Your task to perform on an android device: toggle javascript in the chrome app Image 0: 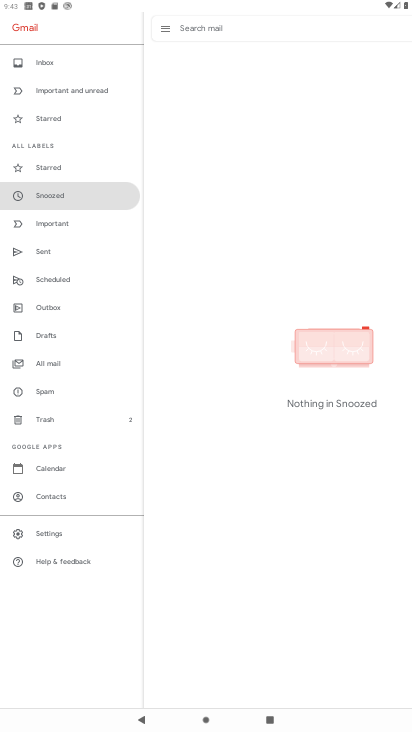
Step 0: press home button
Your task to perform on an android device: toggle javascript in the chrome app Image 1: 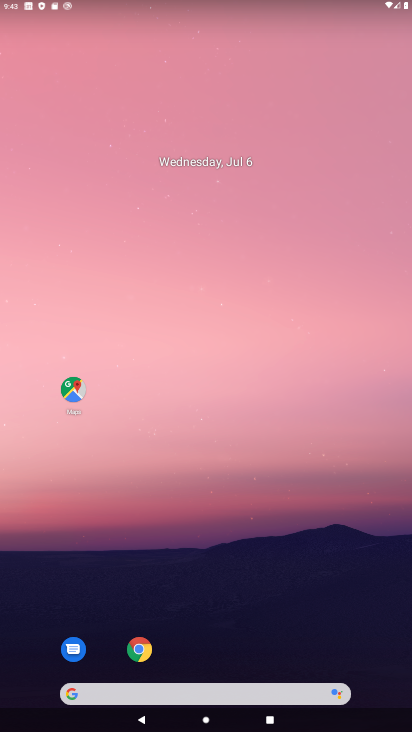
Step 1: drag from (208, 692) to (173, 191)
Your task to perform on an android device: toggle javascript in the chrome app Image 2: 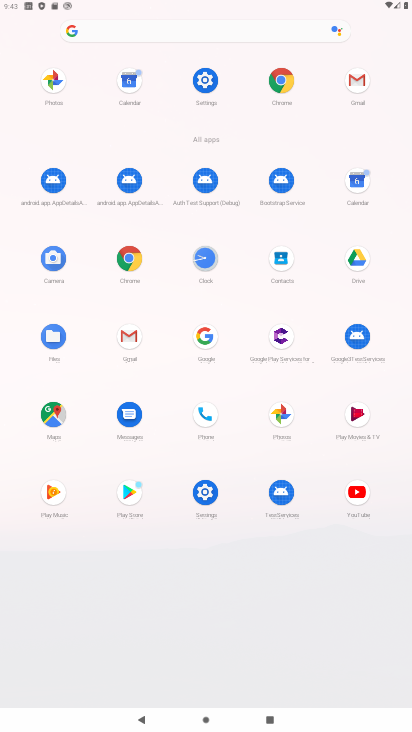
Step 2: click (295, 81)
Your task to perform on an android device: toggle javascript in the chrome app Image 3: 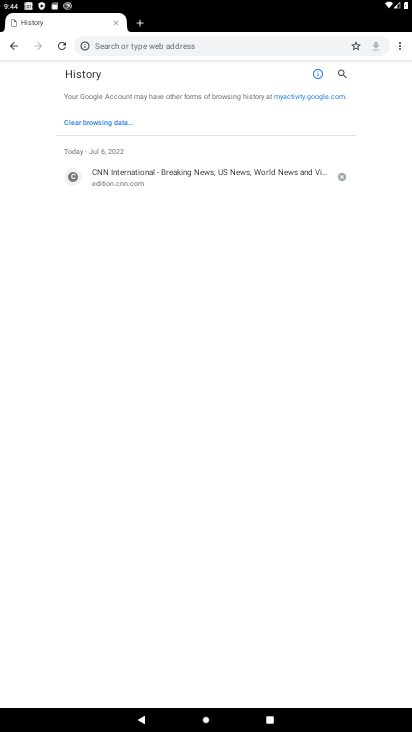
Step 3: drag from (397, 39) to (325, 216)
Your task to perform on an android device: toggle javascript in the chrome app Image 4: 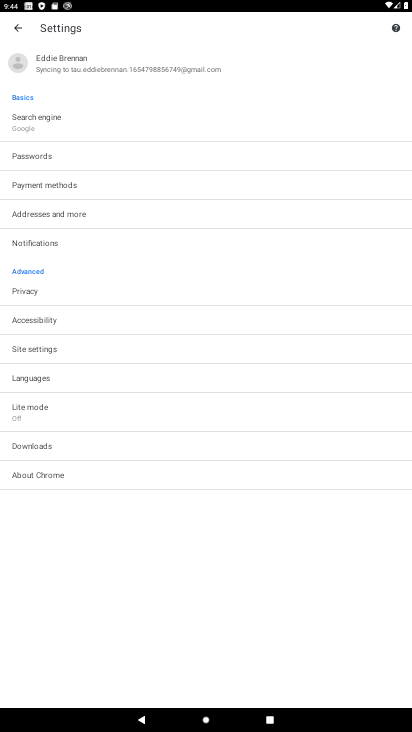
Step 4: click (68, 358)
Your task to perform on an android device: toggle javascript in the chrome app Image 5: 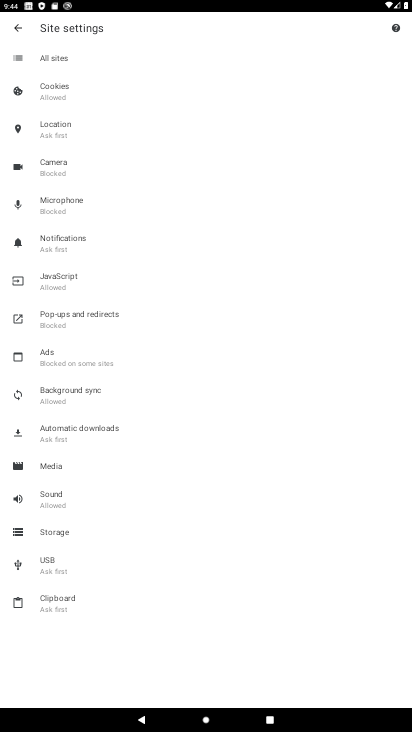
Step 5: click (103, 287)
Your task to perform on an android device: toggle javascript in the chrome app Image 6: 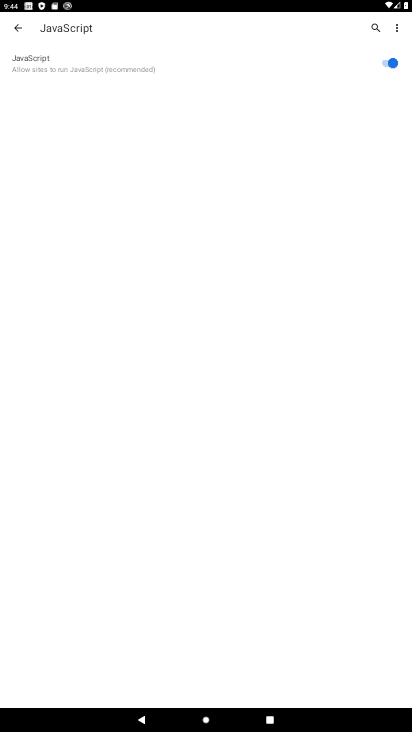
Step 6: click (387, 60)
Your task to perform on an android device: toggle javascript in the chrome app Image 7: 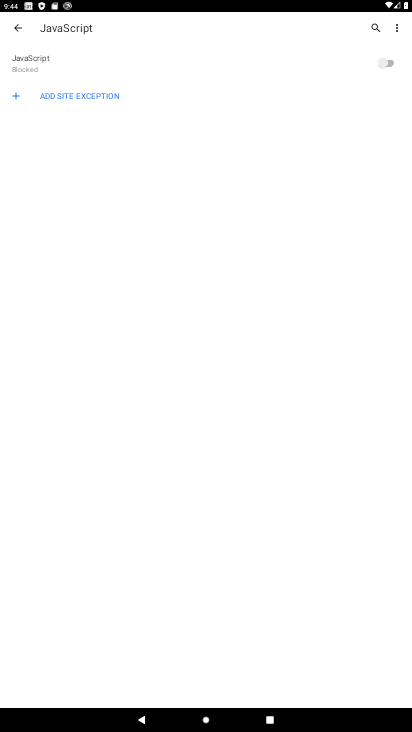
Step 7: task complete